Your task to perform on an android device: See recent photos Image 0: 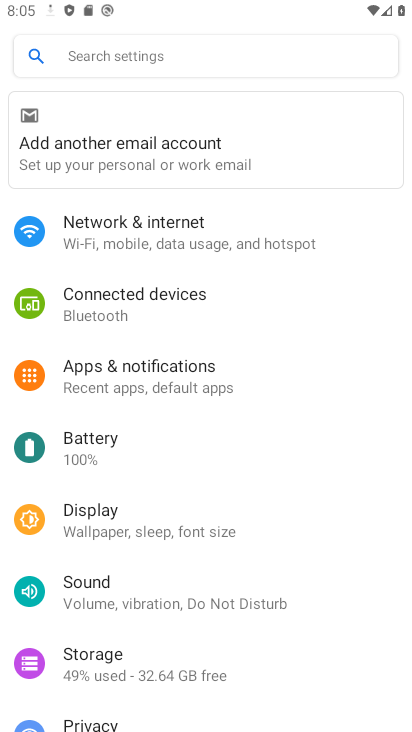
Step 0: press home button
Your task to perform on an android device: See recent photos Image 1: 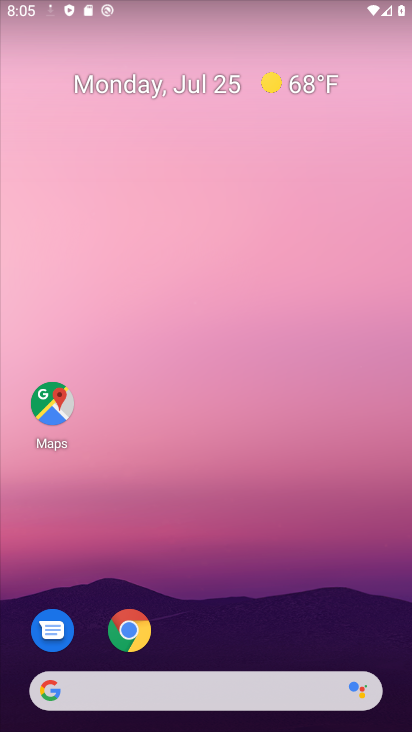
Step 1: drag from (174, 697) to (299, 117)
Your task to perform on an android device: See recent photos Image 2: 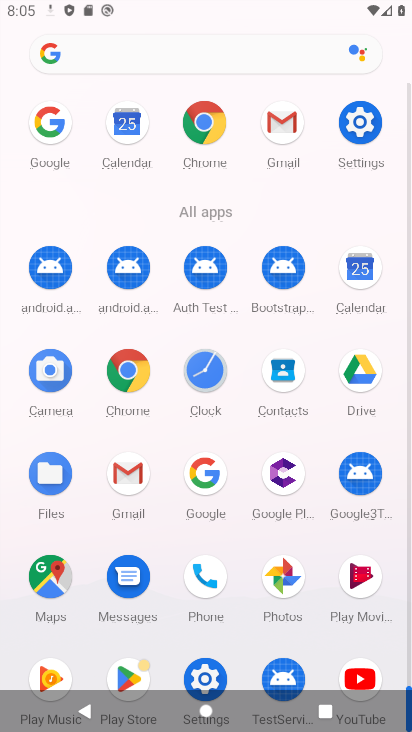
Step 2: click (284, 582)
Your task to perform on an android device: See recent photos Image 3: 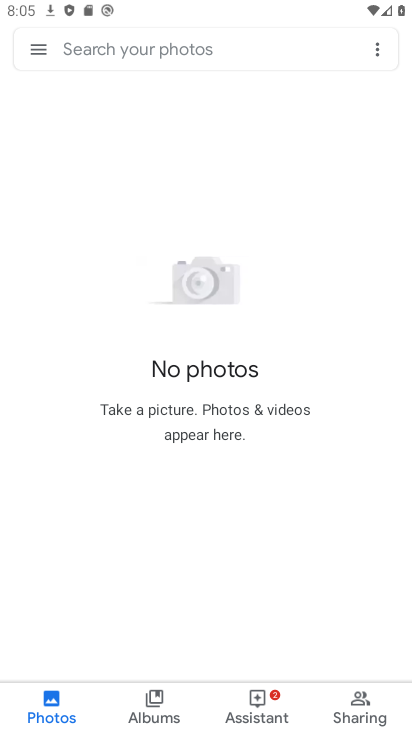
Step 3: click (358, 715)
Your task to perform on an android device: See recent photos Image 4: 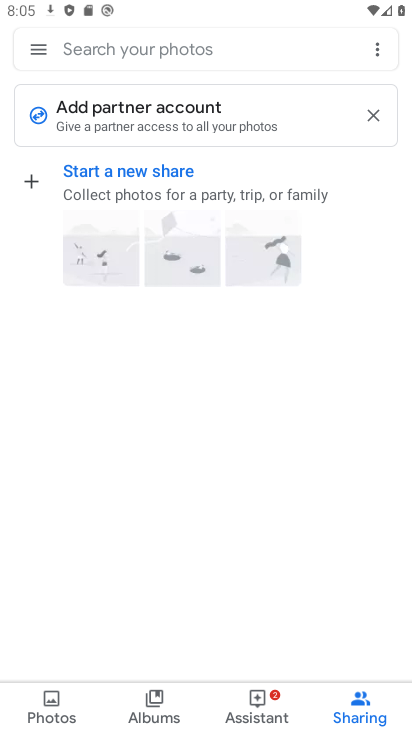
Step 4: click (275, 710)
Your task to perform on an android device: See recent photos Image 5: 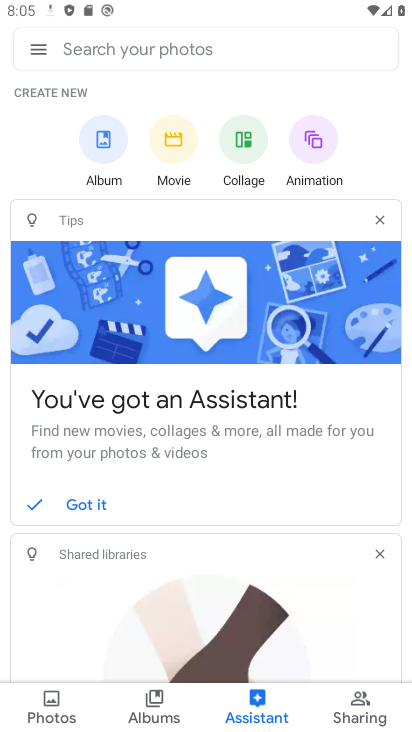
Step 5: click (151, 713)
Your task to perform on an android device: See recent photos Image 6: 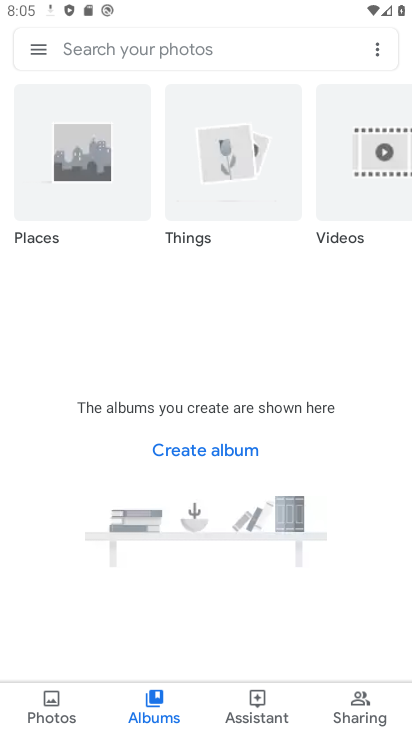
Step 6: task complete